Your task to perform on an android device: empty trash in the gmail app Image 0: 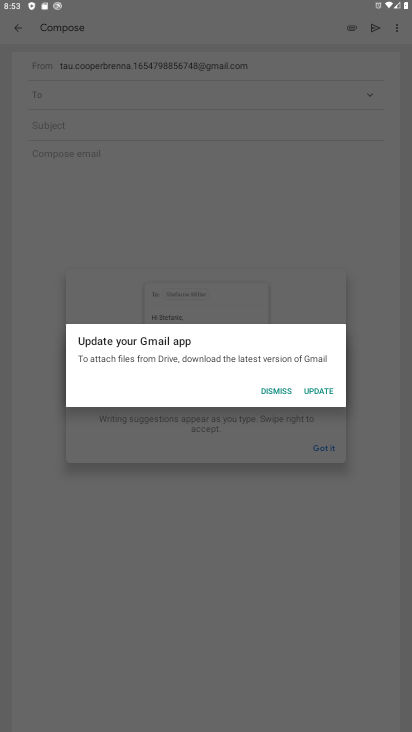
Step 0: press home button
Your task to perform on an android device: empty trash in the gmail app Image 1: 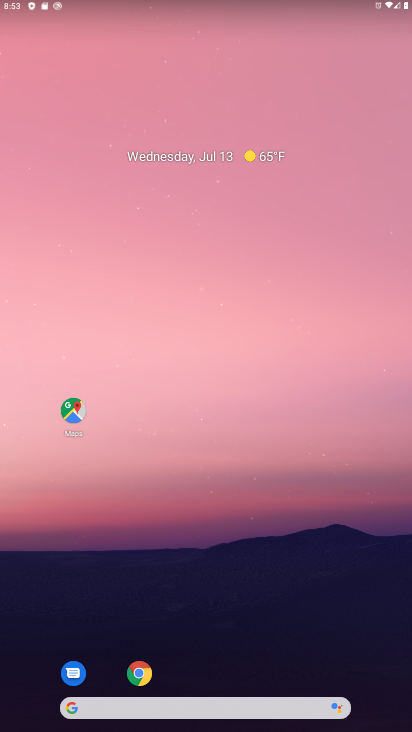
Step 1: drag from (206, 708) to (227, 168)
Your task to perform on an android device: empty trash in the gmail app Image 2: 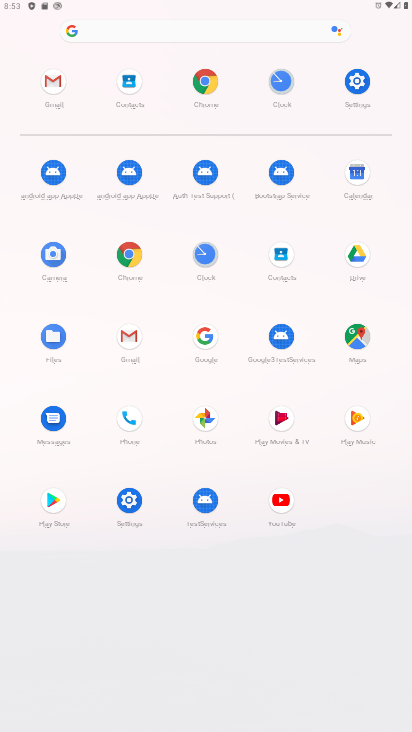
Step 2: click (51, 80)
Your task to perform on an android device: empty trash in the gmail app Image 3: 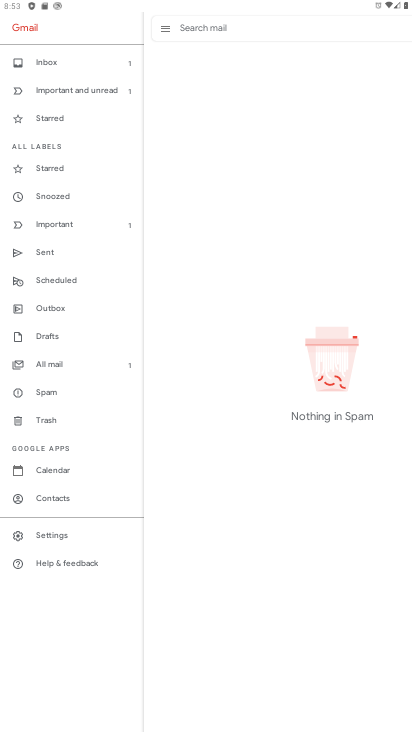
Step 3: click (50, 420)
Your task to perform on an android device: empty trash in the gmail app Image 4: 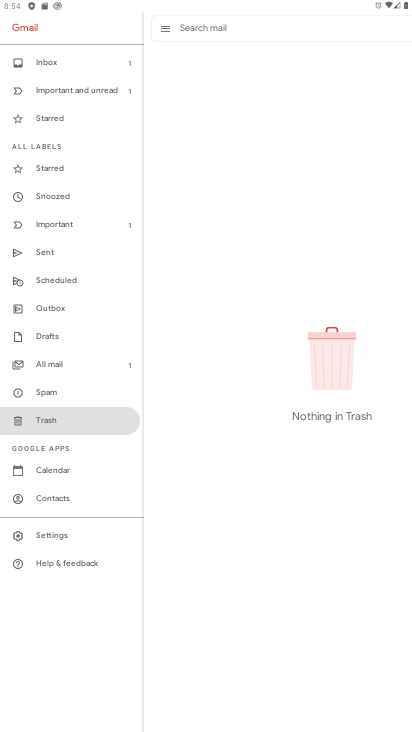
Step 4: task complete